Your task to perform on an android device: Go to Yahoo.com Image 0: 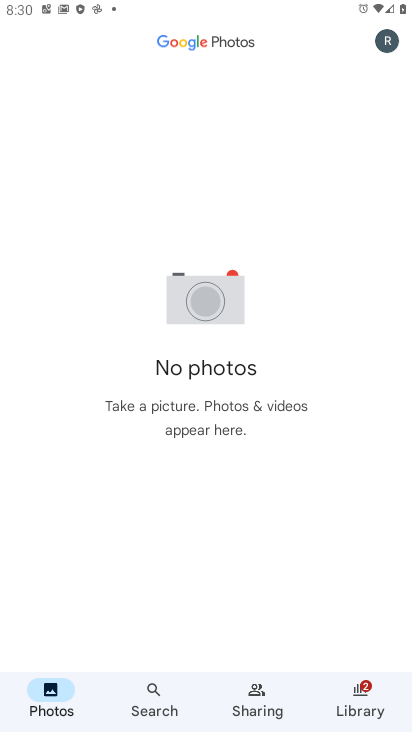
Step 0: press home button
Your task to perform on an android device: Go to Yahoo.com Image 1: 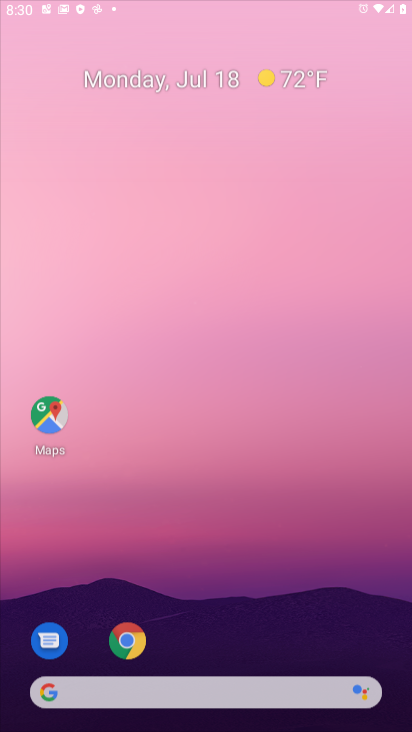
Step 1: drag from (363, 592) to (223, 42)
Your task to perform on an android device: Go to Yahoo.com Image 2: 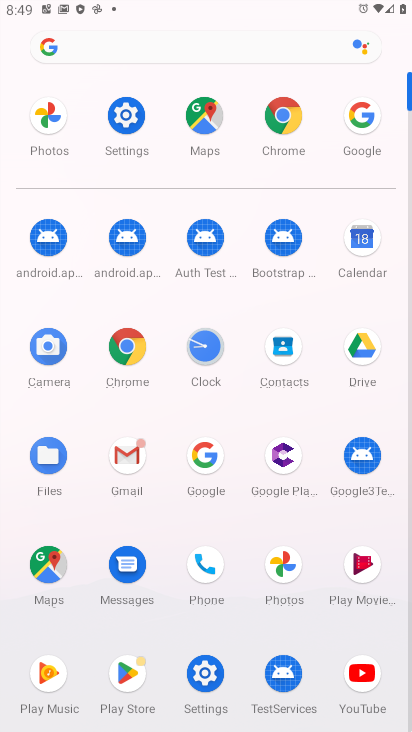
Step 2: click (200, 458)
Your task to perform on an android device: Go to Yahoo.com Image 3: 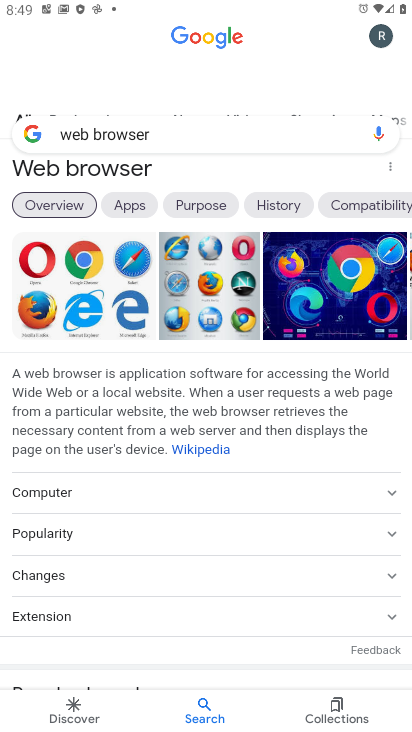
Step 3: press back button
Your task to perform on an android device: Go to Yahoo.com Image 4: 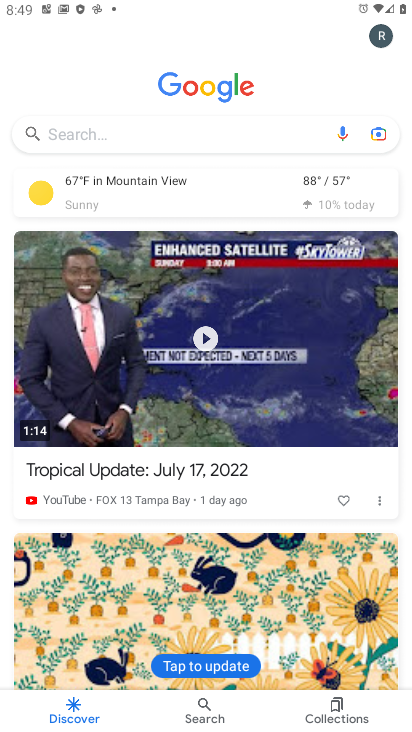
Step 4: click (140, 135)
Your task to perform on an android device: Go to Yahoo.com Image 5: 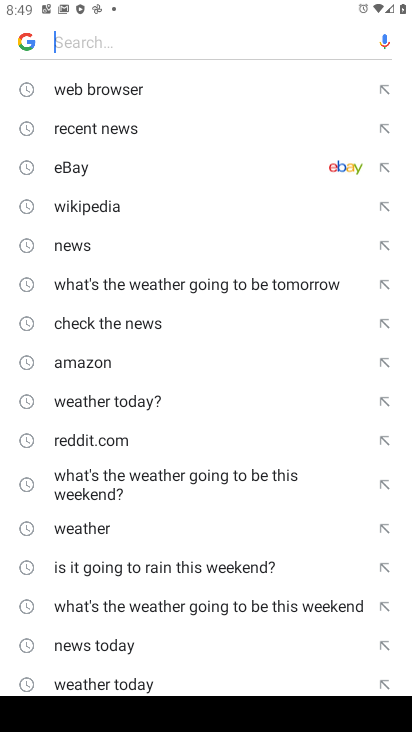
Step 5: type " Yahoo.com"
Your task to perform on an android device: Go to Yahoo.com Image 6: 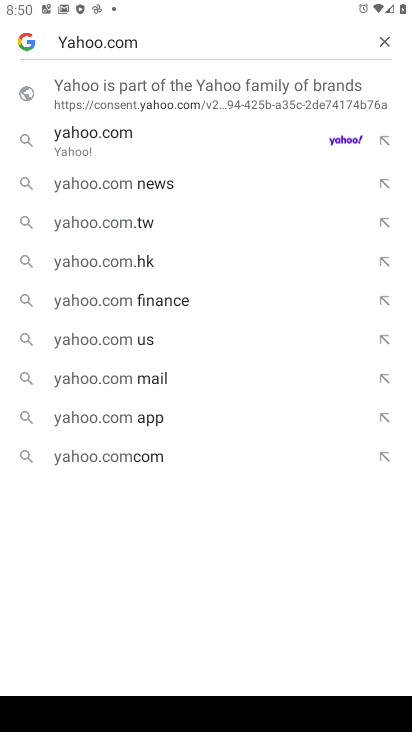
Step 6: click (103, 123)
Your task to perform on an android device: Go to Yahoo.com Image 7: 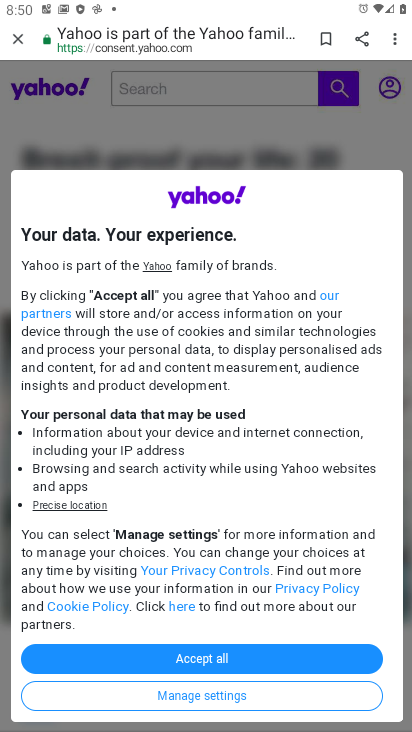
Step 7: task complete